Your task to perform on an android device: manage bookmarks in the chrome app Image 0: 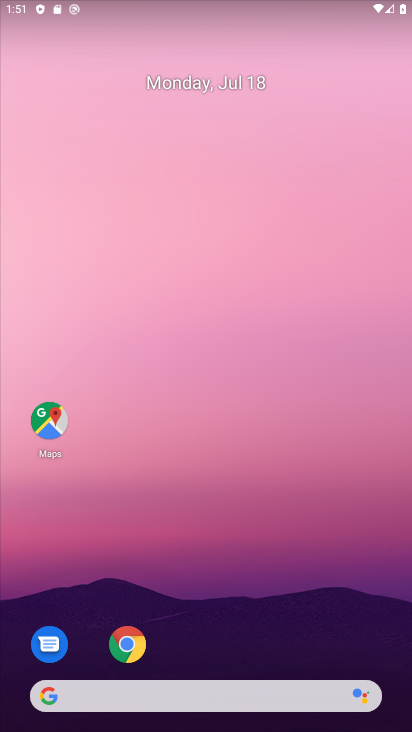
Step 0: drag from (243, 159) to (230, 23)
Your task to perform on an android device: manage bookmarks in the chrome app Image 1: 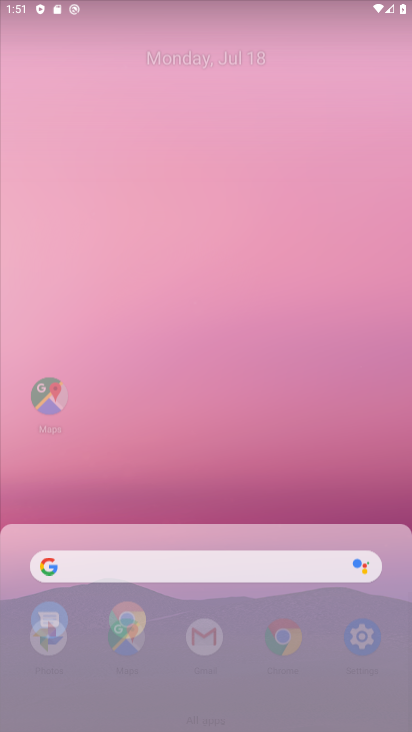
Step 1: drag from (163, 642) to (142, 217)
Your task to perform on an android device: manage bookmarks in the chrome app Image 2: 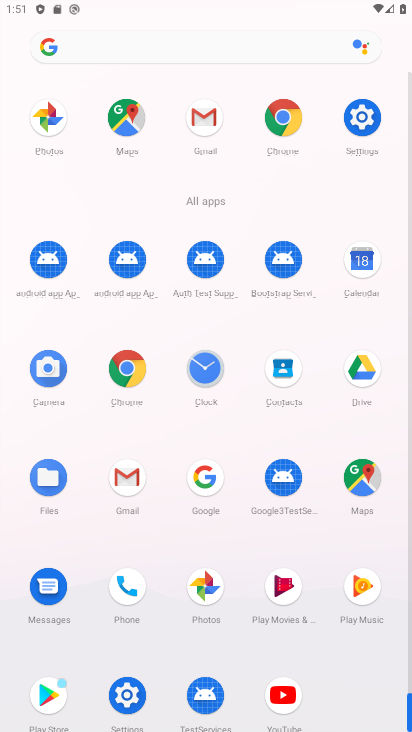
Step 2: click (282, 103)
Your task to perform on an android device: manage bookmarks in the chrome app Image 3: 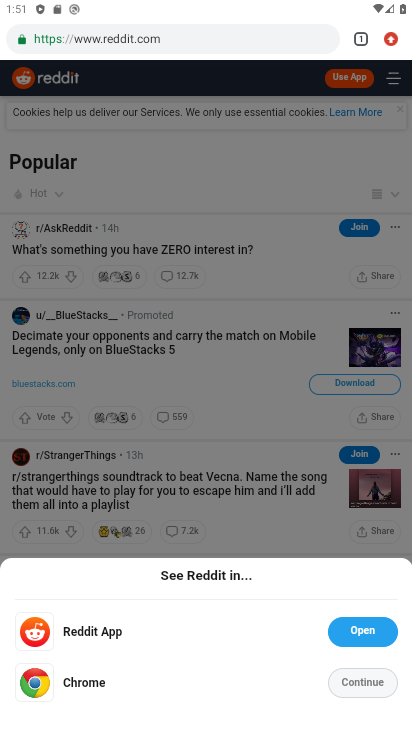
Step 3: drag from (268, 68) to (273, 108)
Your task to perform on an android device: manage bookmarks in the chrome app Image 4: 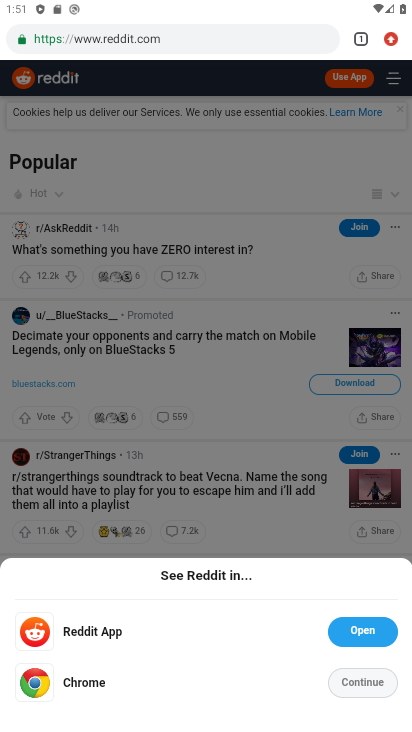
Step 4: click (265, 146)
Your task to perform on an android device: manage bookmarks in the chrome app Image 5: 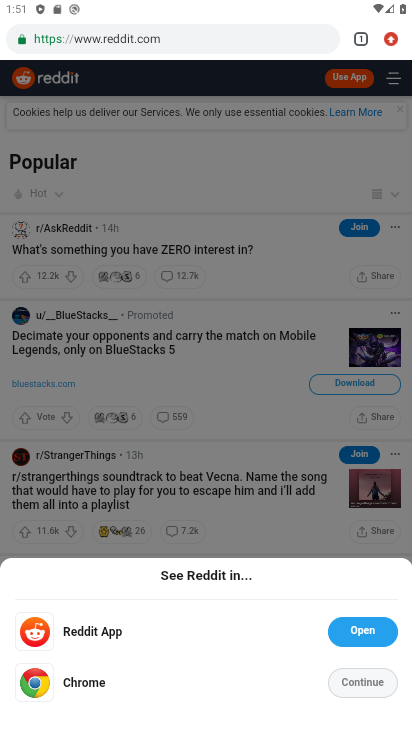
Step 5: click (261, 189)
Your task to perform on an android device: manage bookmarks in the chrome app Image 6: 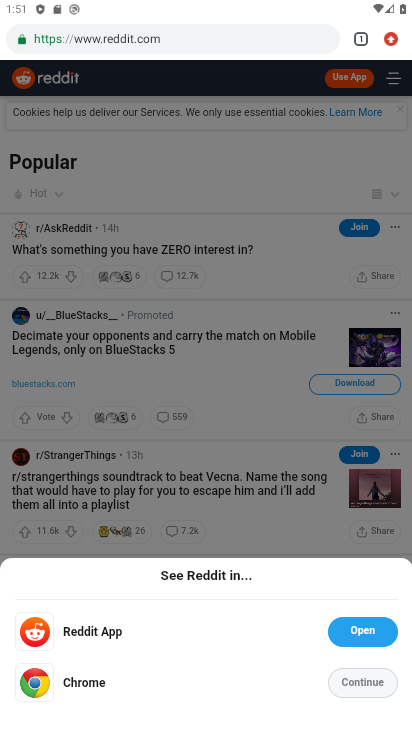
Step 6: click (223, 233)
Your task to perform on an android device: manage bookmarks in the chrome app Image 7: 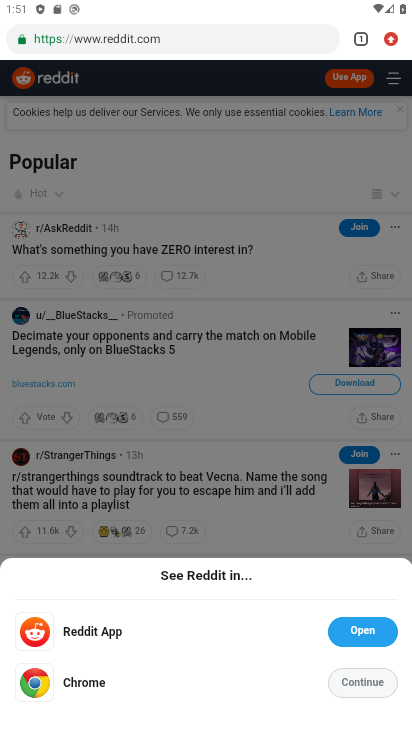
Step 7: drag from (309, 76) to (324, 133)
Your task to perform on an android device: manage bookmarks in the chrome app Image 8: 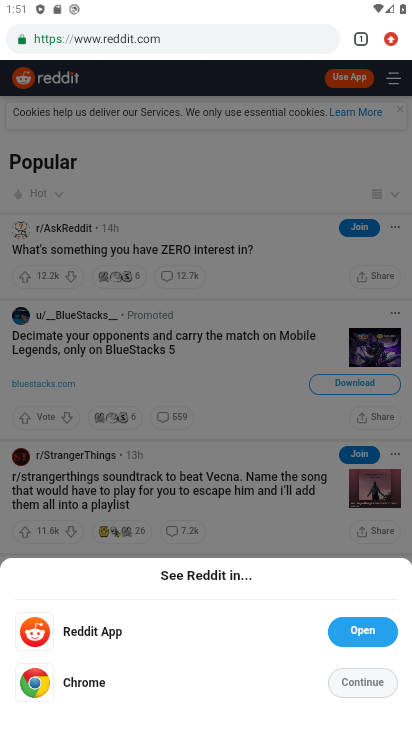
Step 8: click (327, 149)
Your task to perform on an android device: manage bookmarks in the chrome app Image 9: 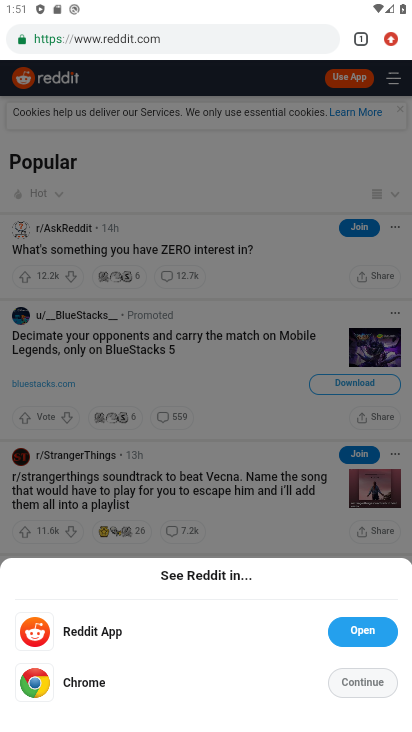
Step 9: click (329, 165)
Your task to perform on an android device: manage bookmarks in the chrome app Image 10: 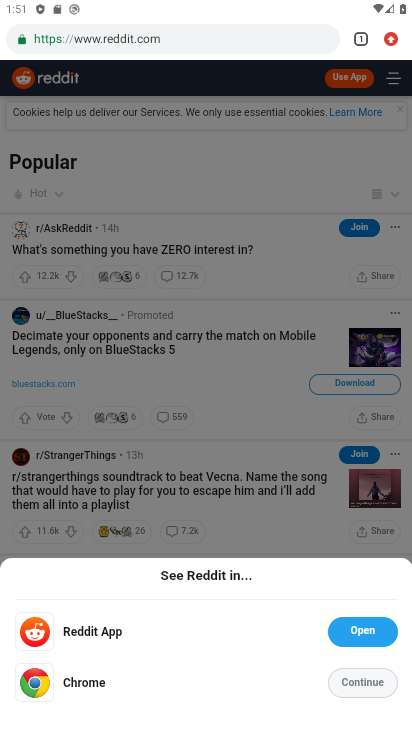
Step 10: click (351, 62)
Your task to perform on an android device: manage bookmarks in the chrome app Image 11: 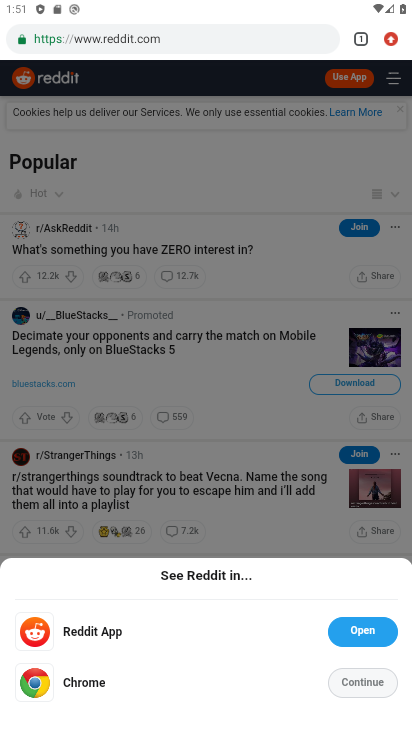
Step 11: click (366, 73)
Your task to perform on an android device: manage bookmarks in the chrome app Image 12: 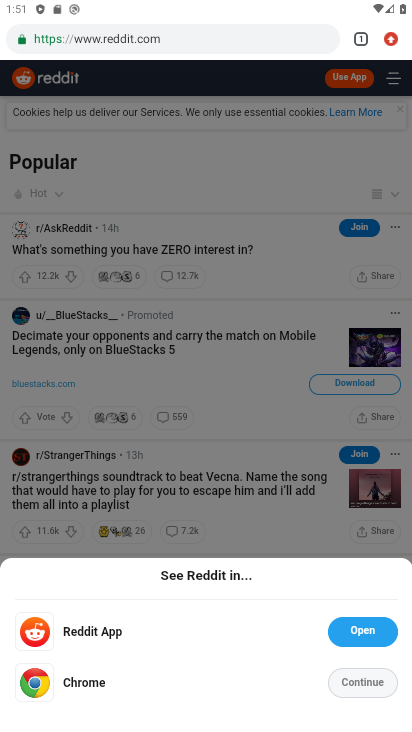
Step 12: click (366, 73)
Your task to perform on an android device: manage bookmarks in the chrome app Image 13: 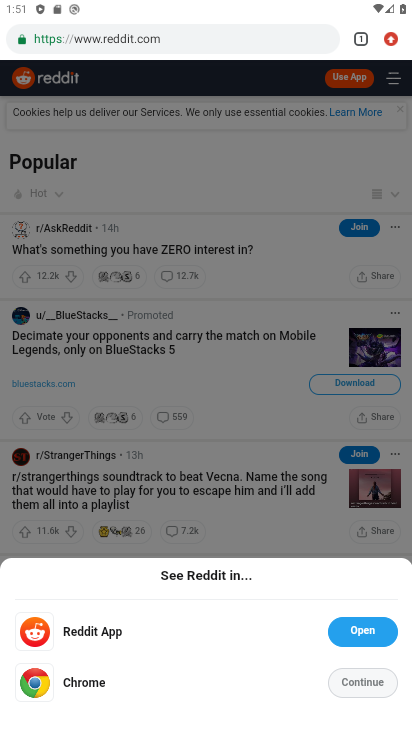
Step 13: click (370, 84)
Your task to perform on an android device: manage bookmarks in the chrome app Image 14: 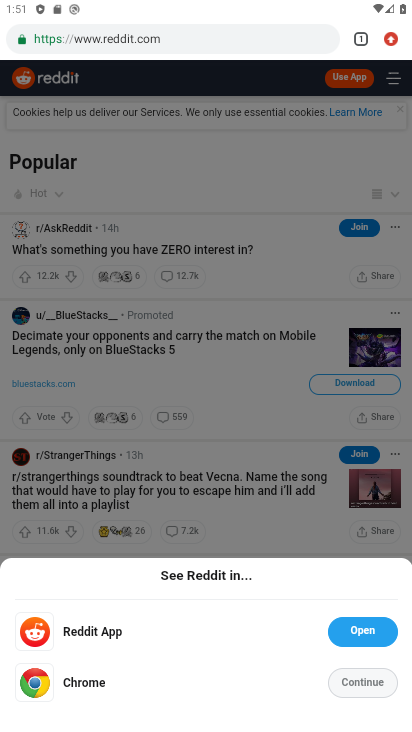
Step 14: click (369, 123)
Your task to perform on an android device: manage bookmarks in the chrome app Image 15: 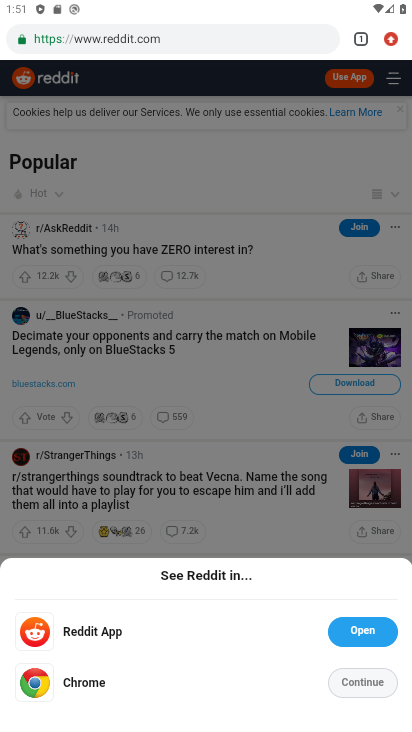
Step 15: click (366, 119)
Your task to perform on an android device: manage bookmarks in the chrome app Image 16: 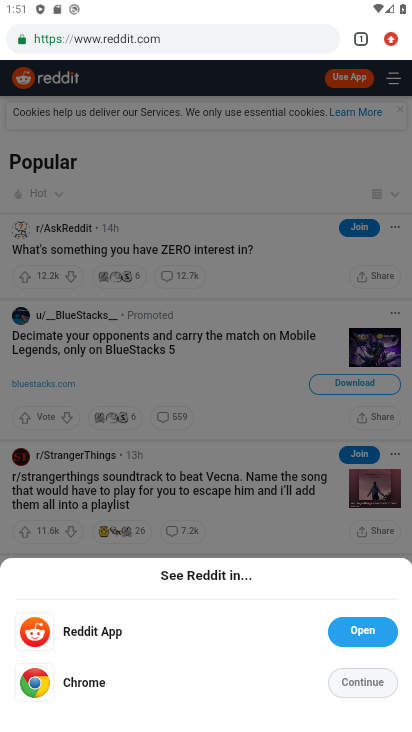
Step 16: click (251, 274)
Your task to perform on an android device: manage bookmarks in the chrome app Image 17: 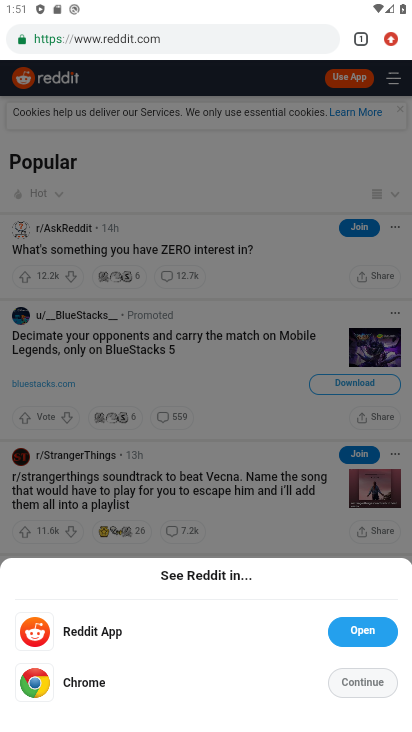
Step 17: click (249, 273)
Your task to perform on an android device: manage bookmarks in the chrome app Image 18: 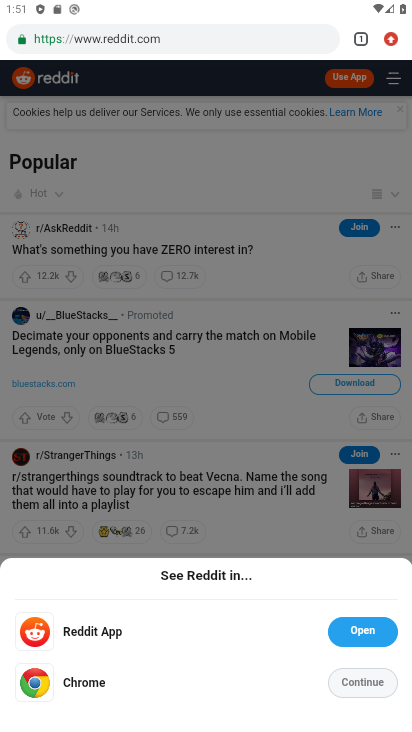
Step 18: click (355, 623)
Your task to perform on an android device: manage bookmarks in the chrome app Image 19: 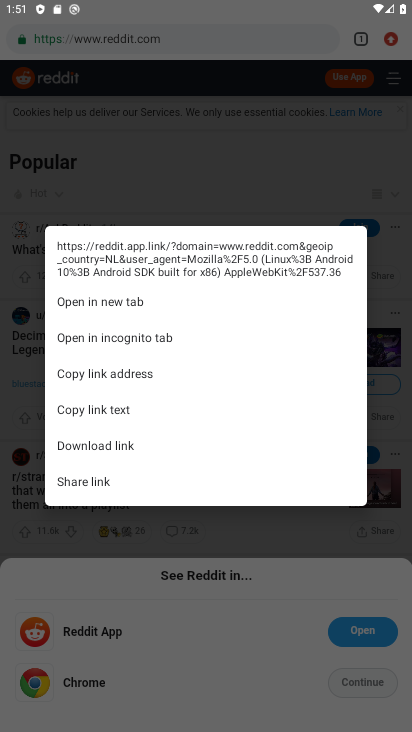
Step 19: click (104, 298)
Your task to perform on an android device: manage bookmarks in the chrome app Image 20: 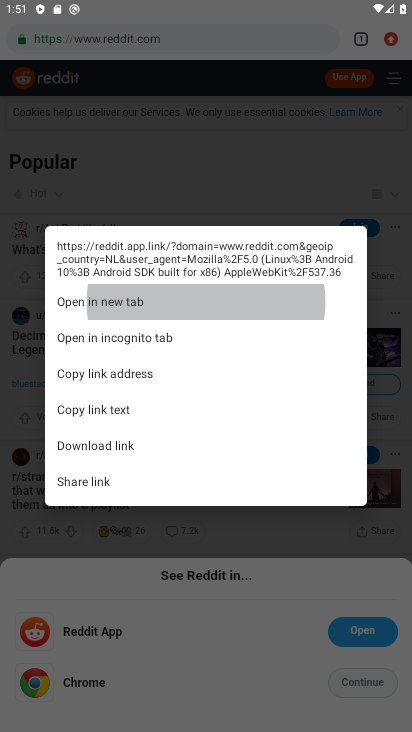
Step 20: click (104, 297)
Your task to perform on an android device: manage bookmarks in the chrome app Image 21: 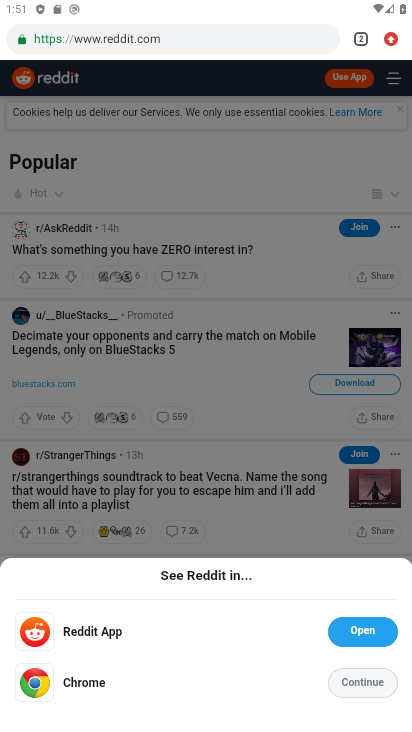
Step 21: click (104, 297)
Your task to perform on an android device: manage bookmarks in the chrome app Image 22: 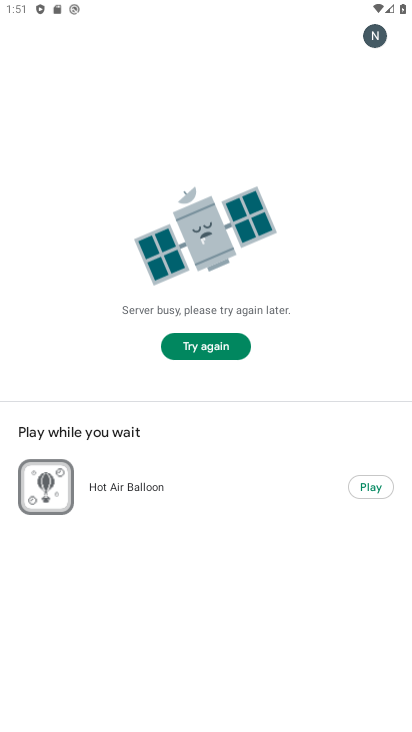
Step 22: task complete